Your task to perform on an android device: install app "DoorDash - Dasher" Image 0: 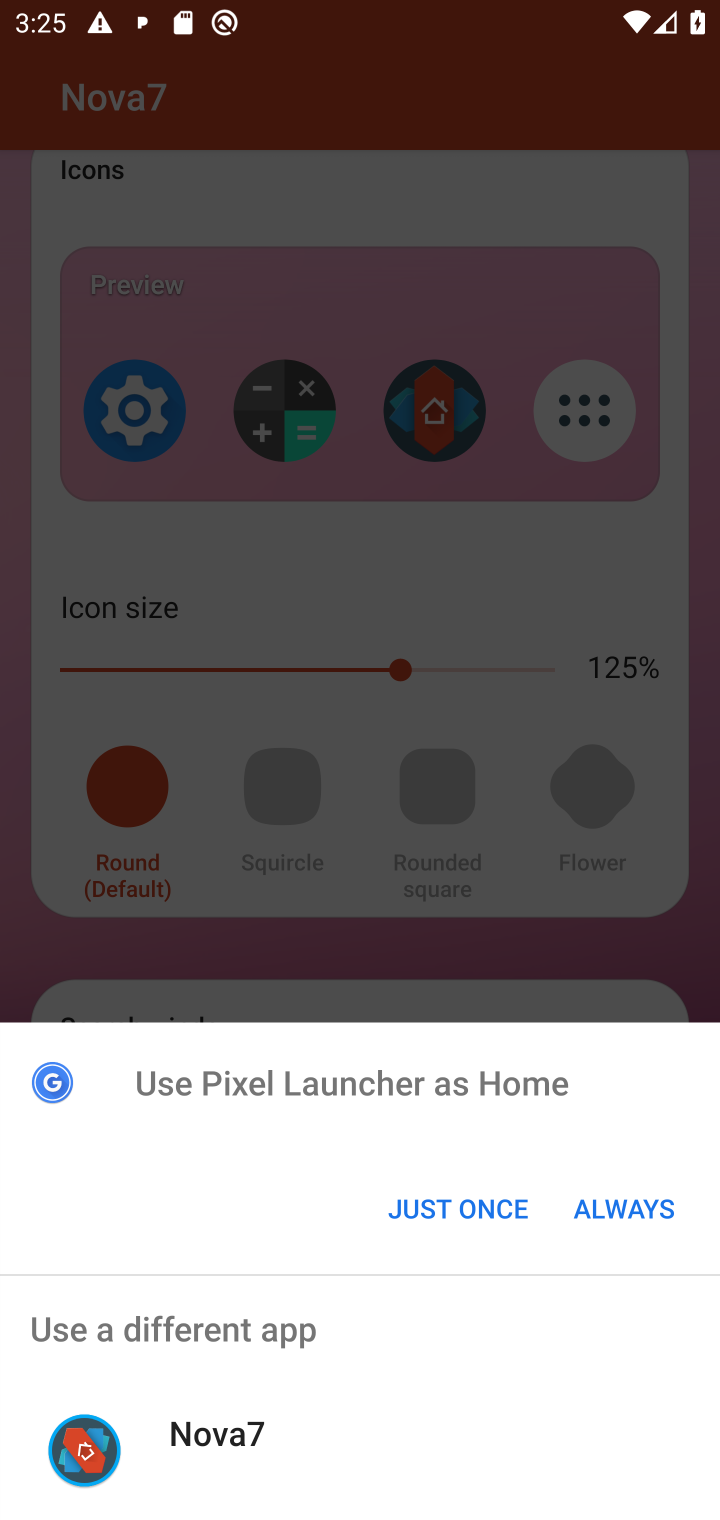
Step 0: press home button
Your task to perform on an android device: install app "DoorDash - Dasher" Image 1: 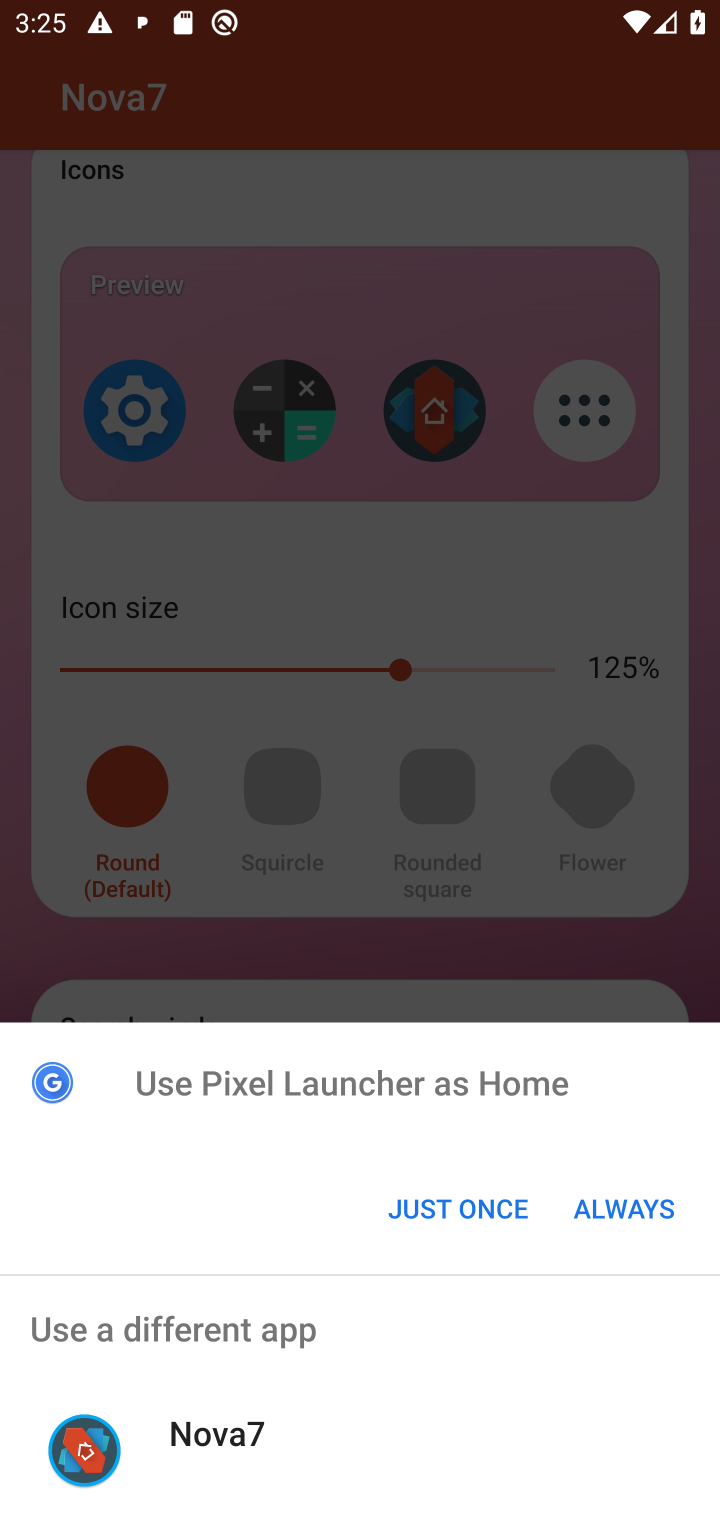
Step 1: press home button
Your task to perform on an android device: install app "DoorDash - Dasher" Image 2: 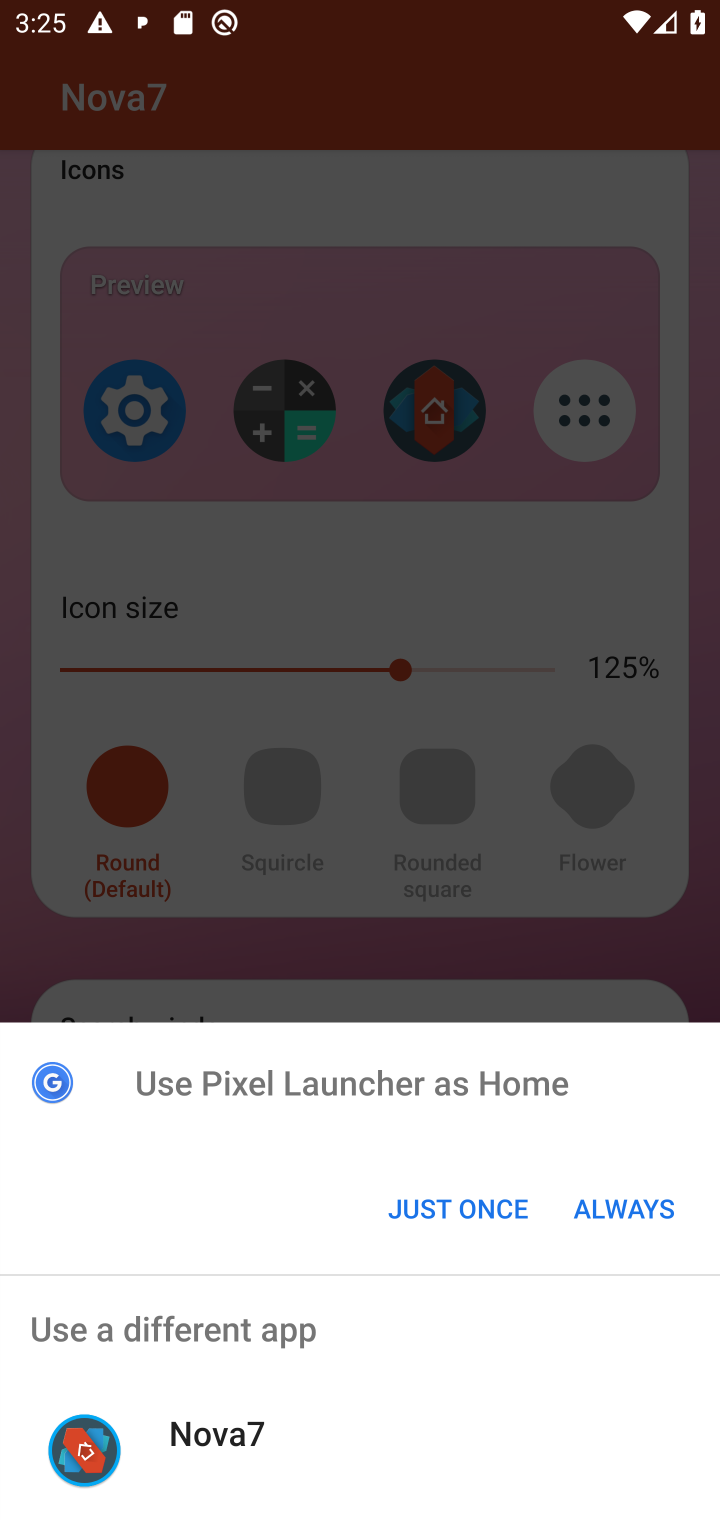
Step 2: press home button
Your task to perform on an android device: install app "DoorDash - Dasher" Image 3: 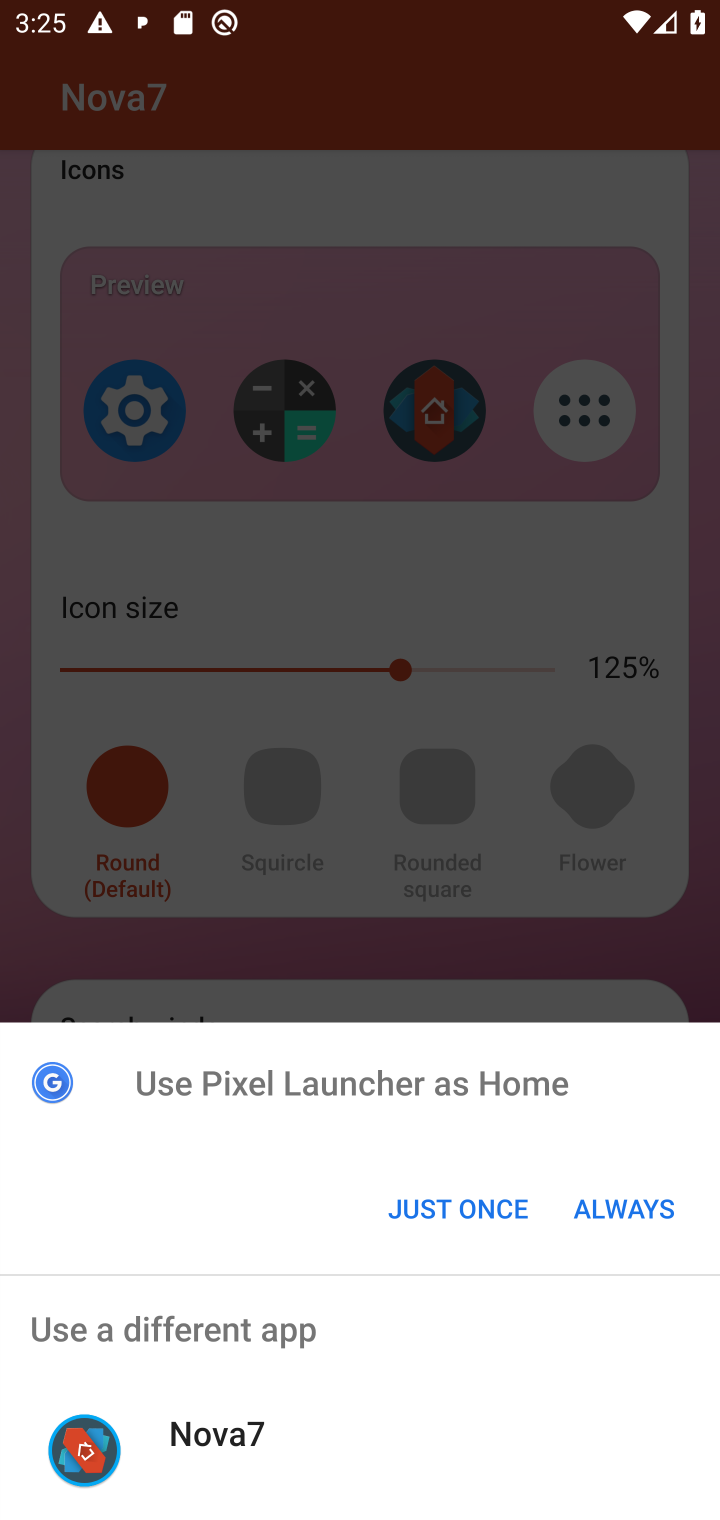
Step 3: click (451, 1184)
Your task to perform on an android device: install app "DoorDash - Dasher" Image 4: 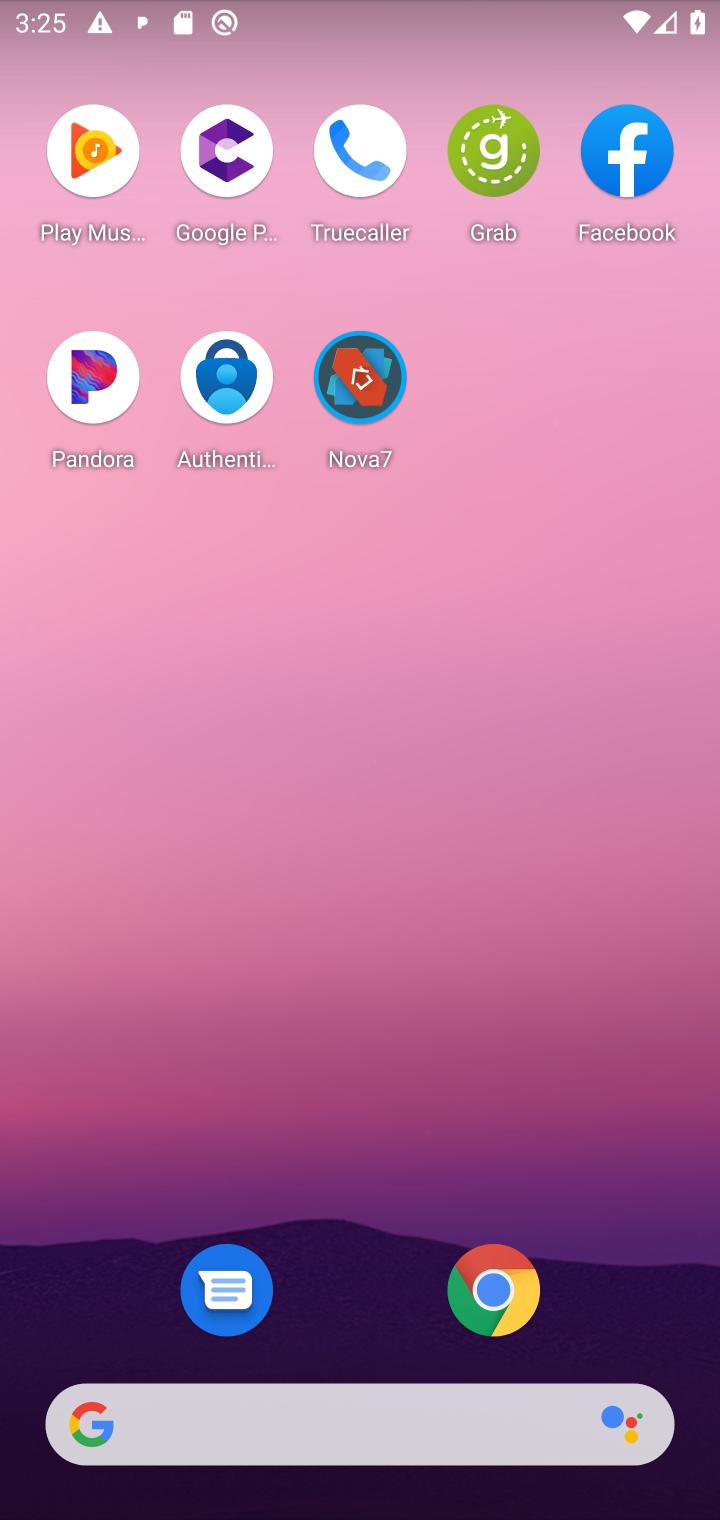
Step 4: drag from (335, 1258) to (248, 124)
Your task to perform on an android device: install app "DoorDash - Dasher" Image 5: 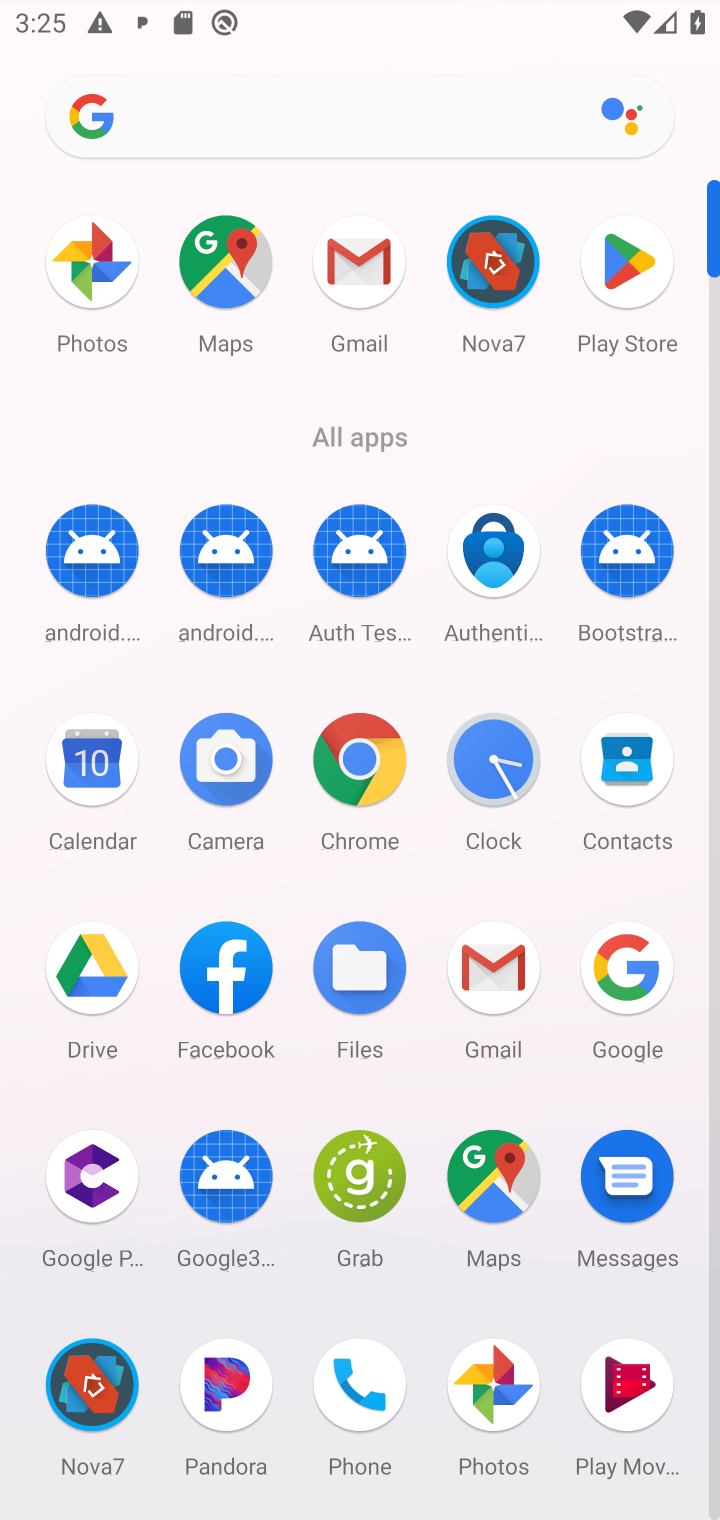
Step 5: click (620, 284)
Your task to perform on an android device: install app "DoorDash - Dasher" Image 6: 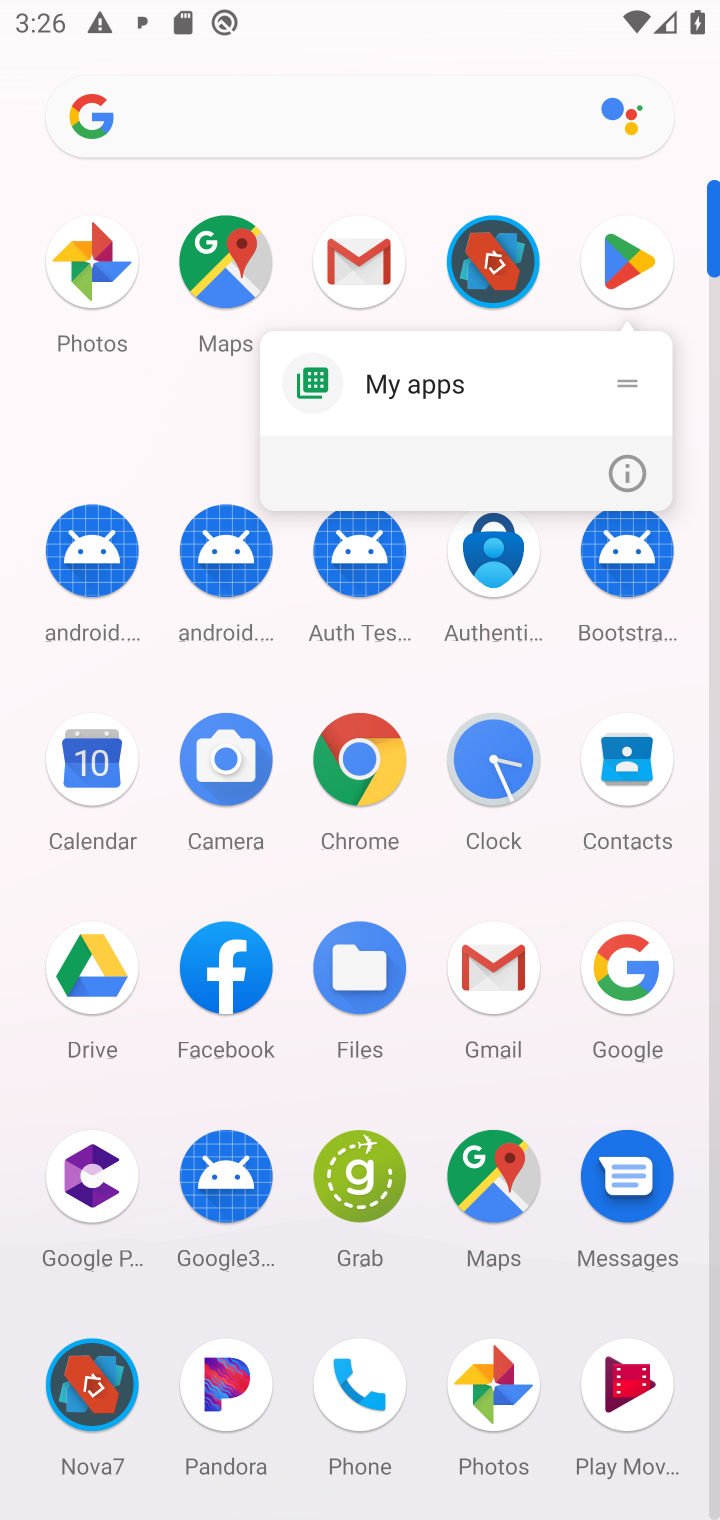
Step 6: click (629, 274)
Your task to perform on an android device: install app "DoorDash - Dasher" Image 7: 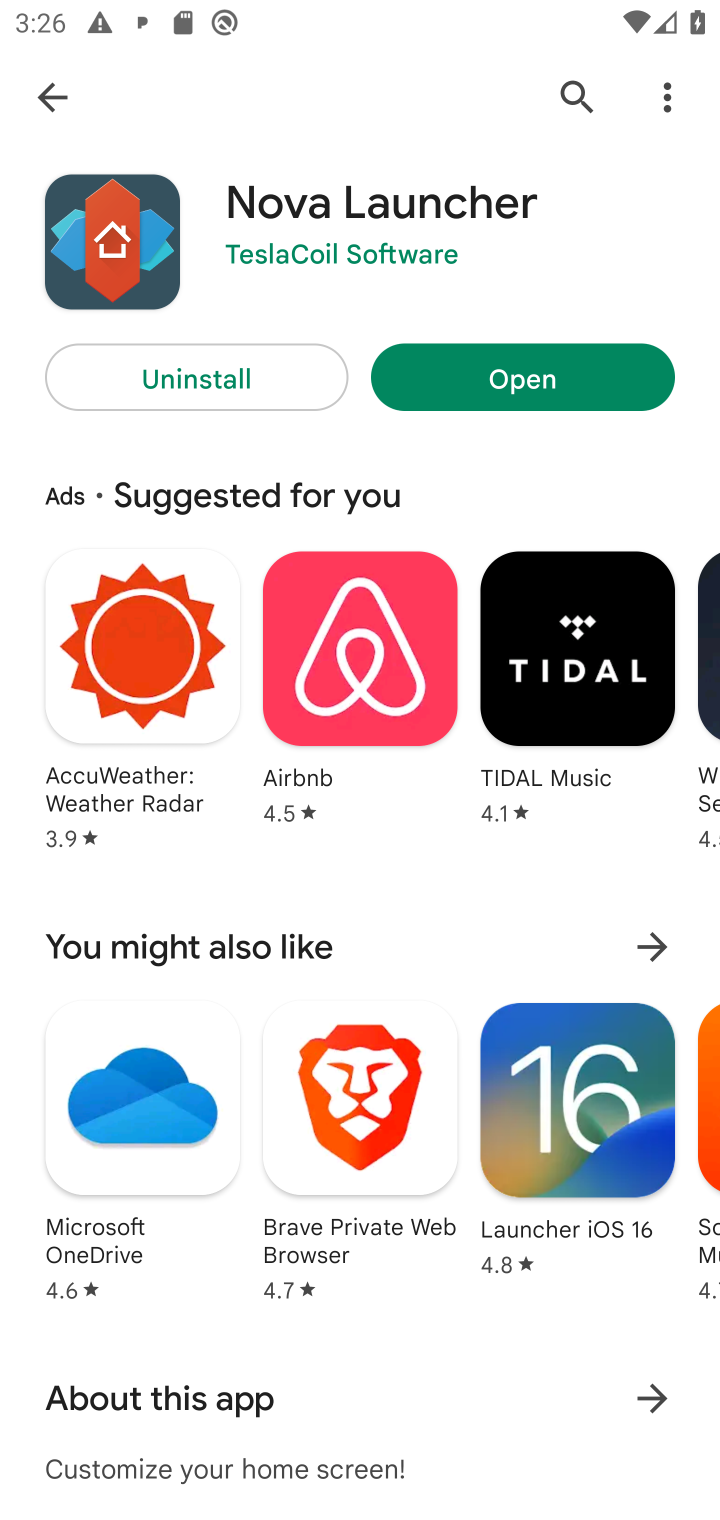
Step 7: click (35, 92)
Your task to perform on an android device: install app "DoorDash - Dasher" Image 8: 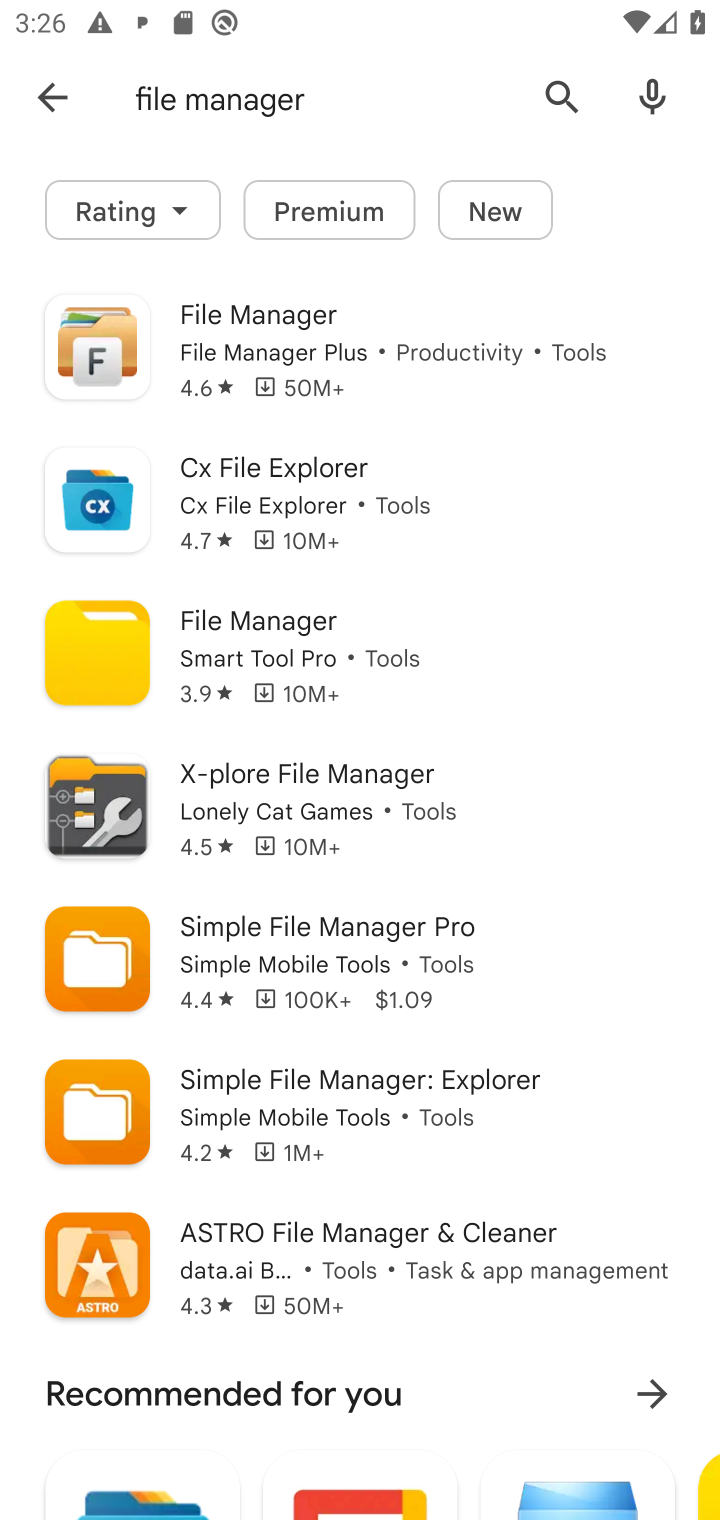
Step 8: click (561, 110)
Your task to perform on an android device: install app "DoorDash - Dasher" Image 9: 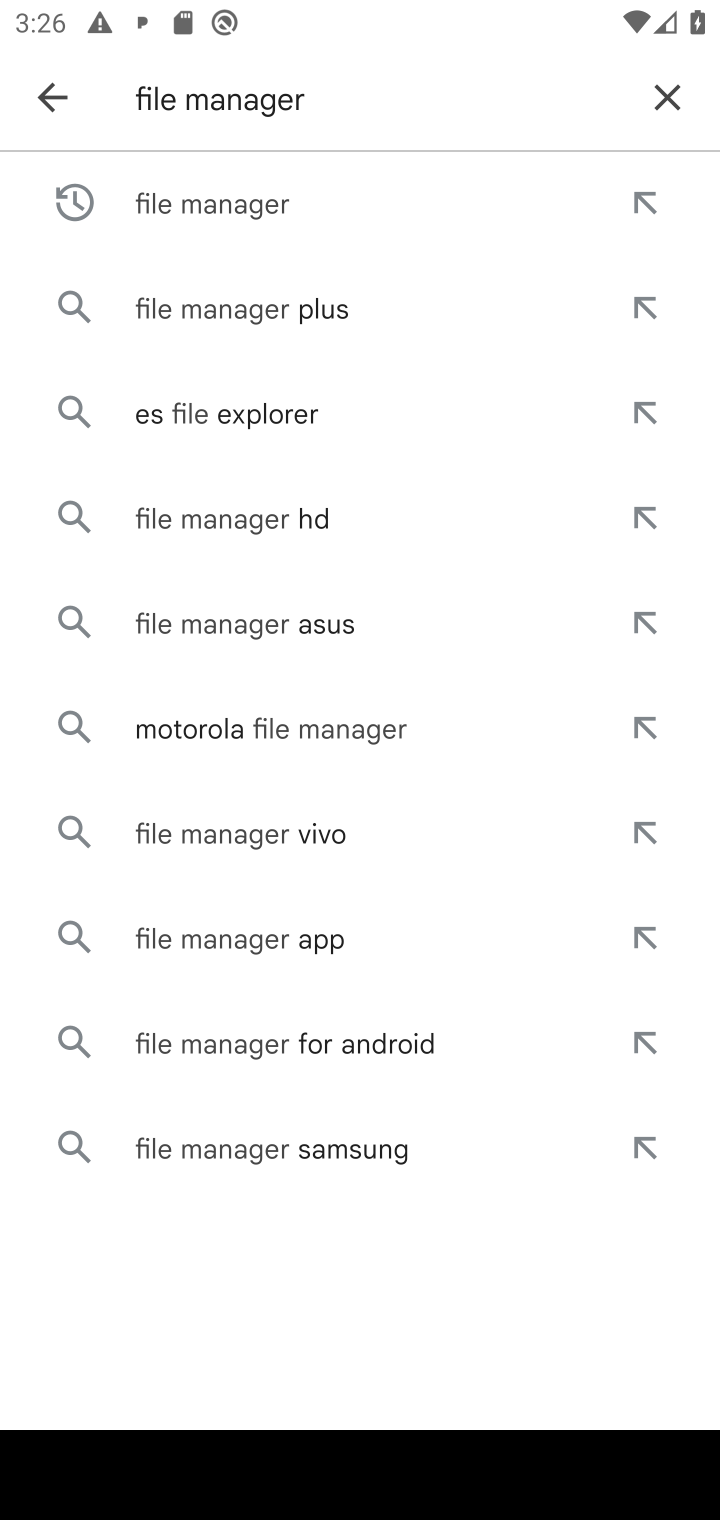
Step 9: click (682, 99)
Your task to perform on an android device: install app "DoorDash - Dasher" Image 10: 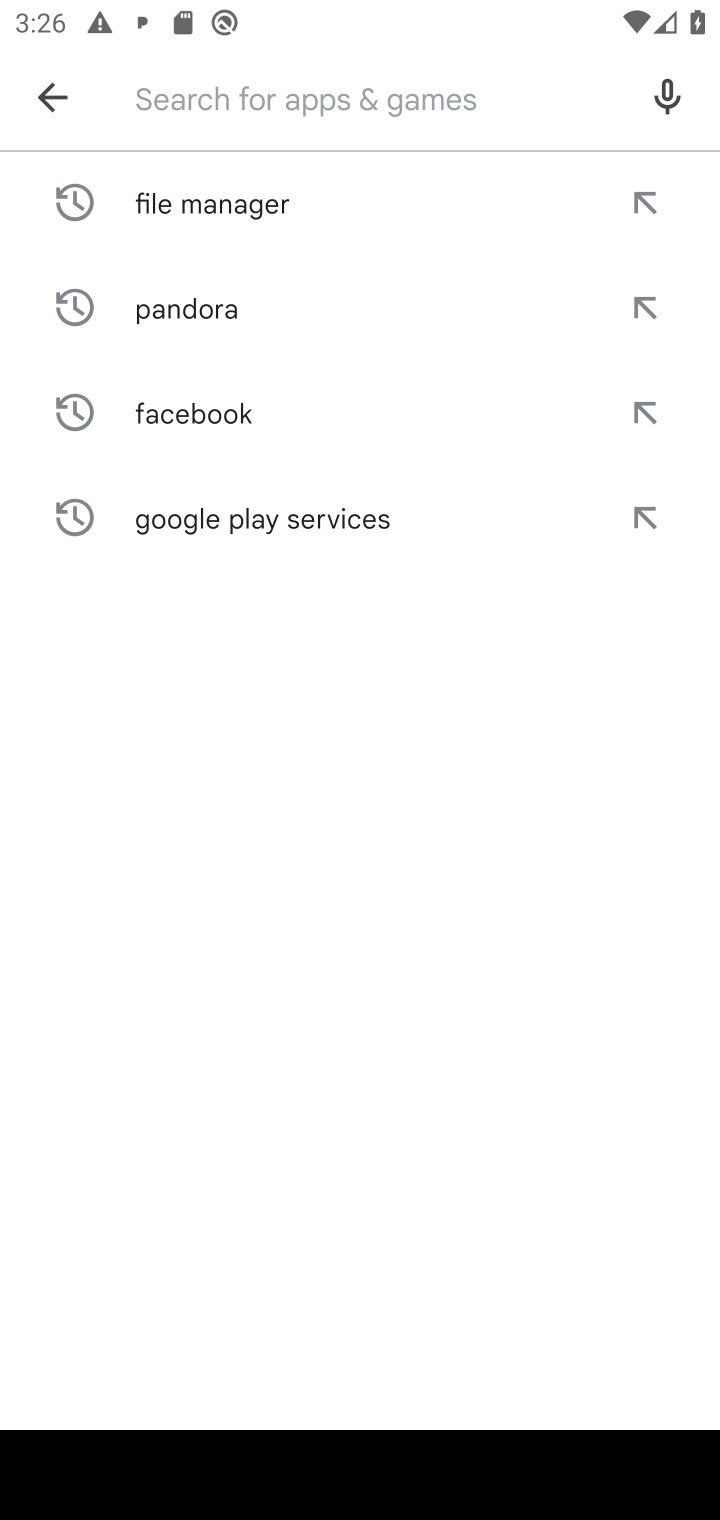
Step 10: type "DoorDash - Dasher"
Your task to perform on an android device: install app "DoorDash - Dasher" Image 11: 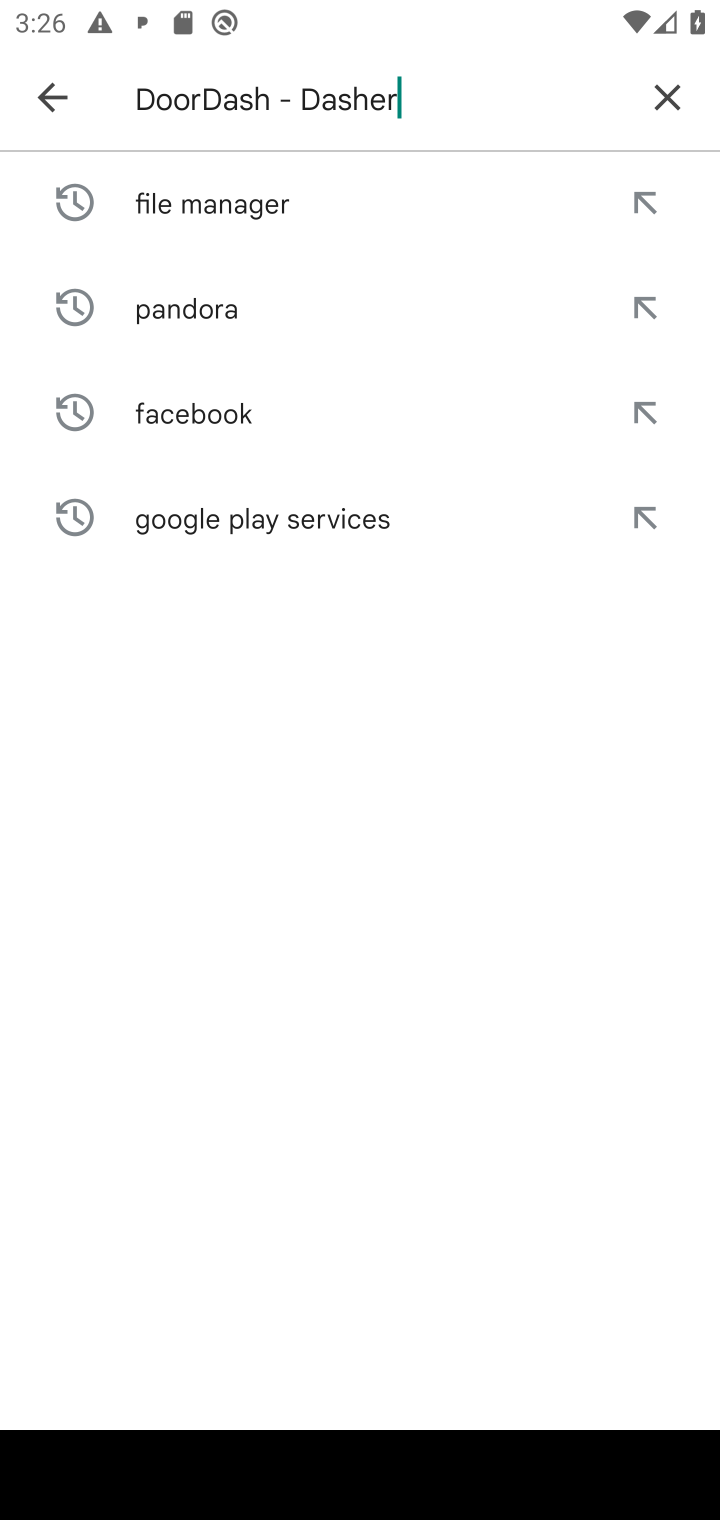
Step 11: type ""
Your task to perform on an android device: install app "DoorDash - Dasher" Image 12: 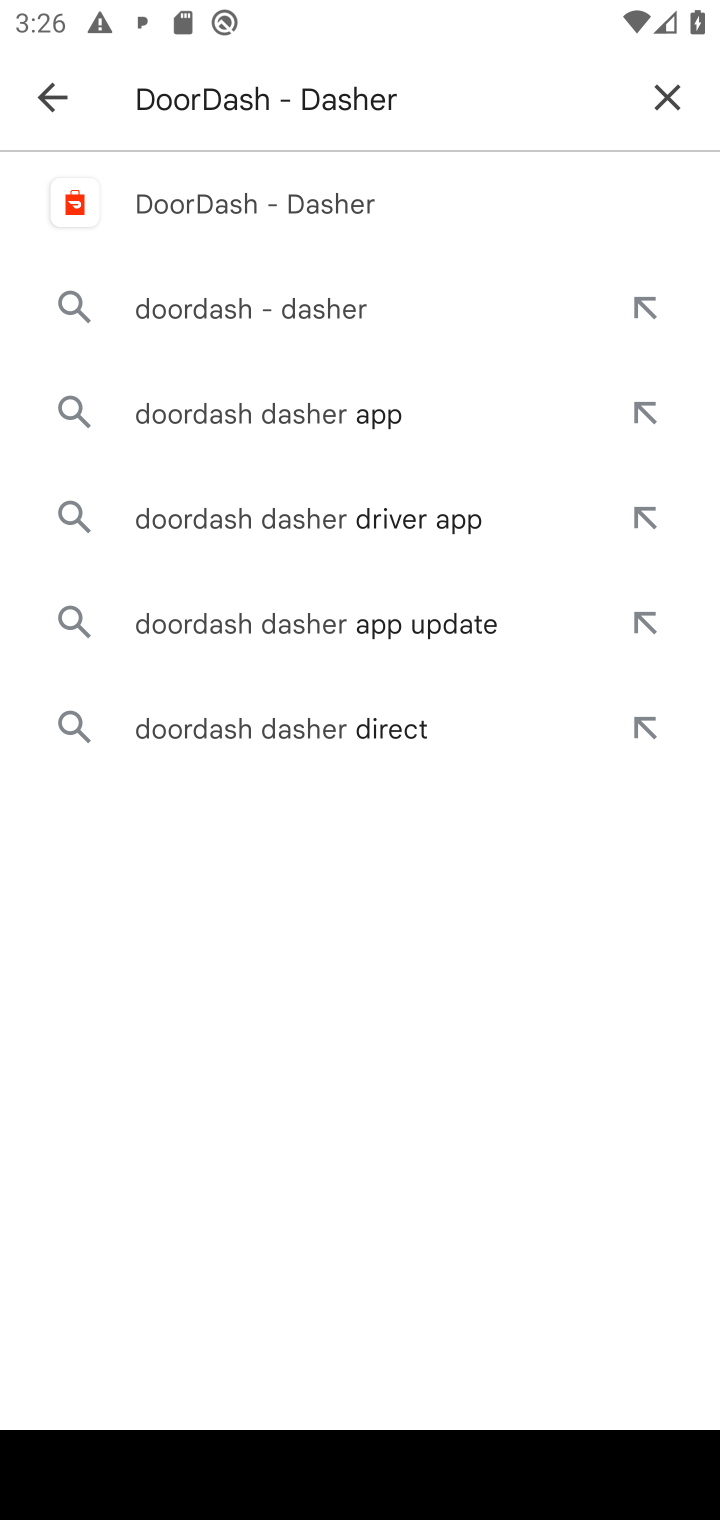
Step 12: click (337, 229)
Your task to perform on an android device: install app "DoorDash - Dasher" Image 13: 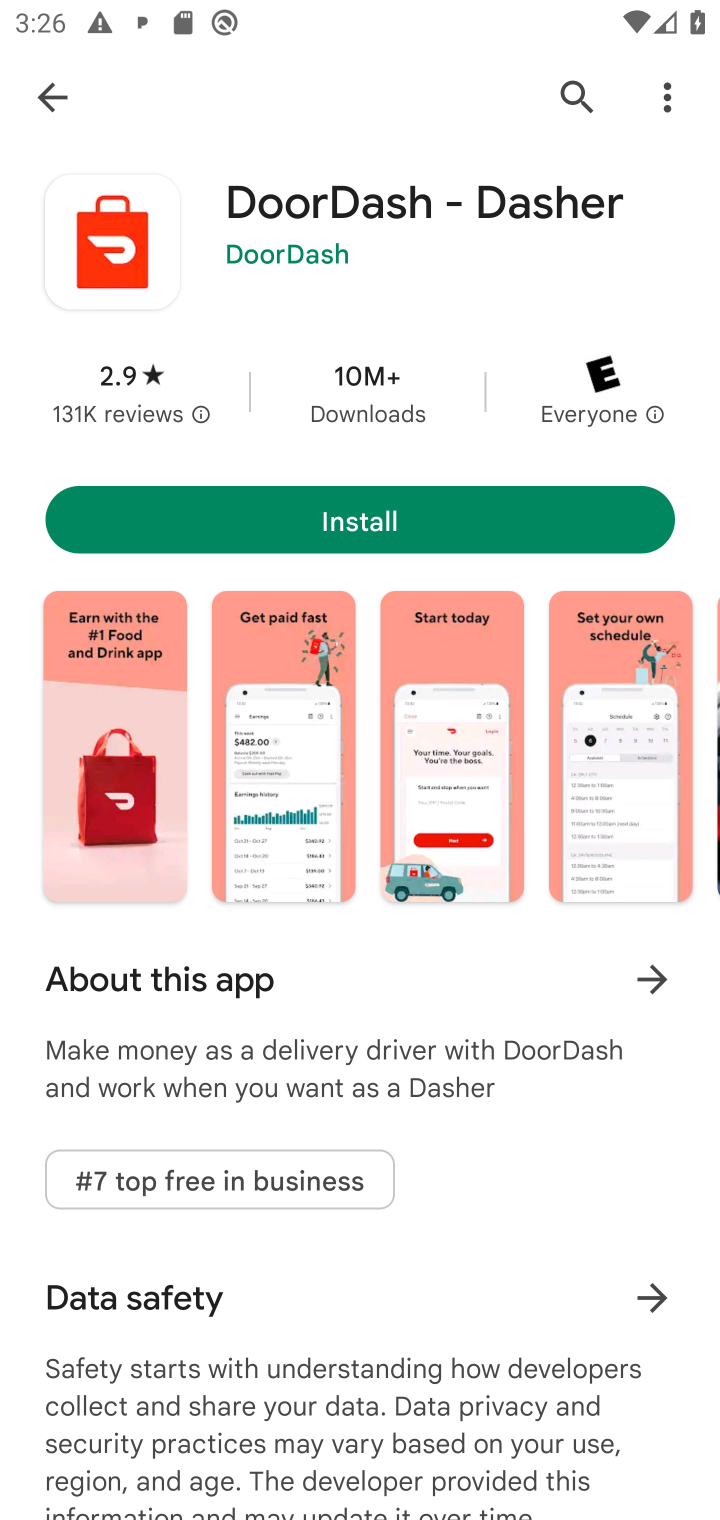
Step 13: click (332, 510)
Your task to perform on an android device: install app "DoorDash - Dasher" Image 14: 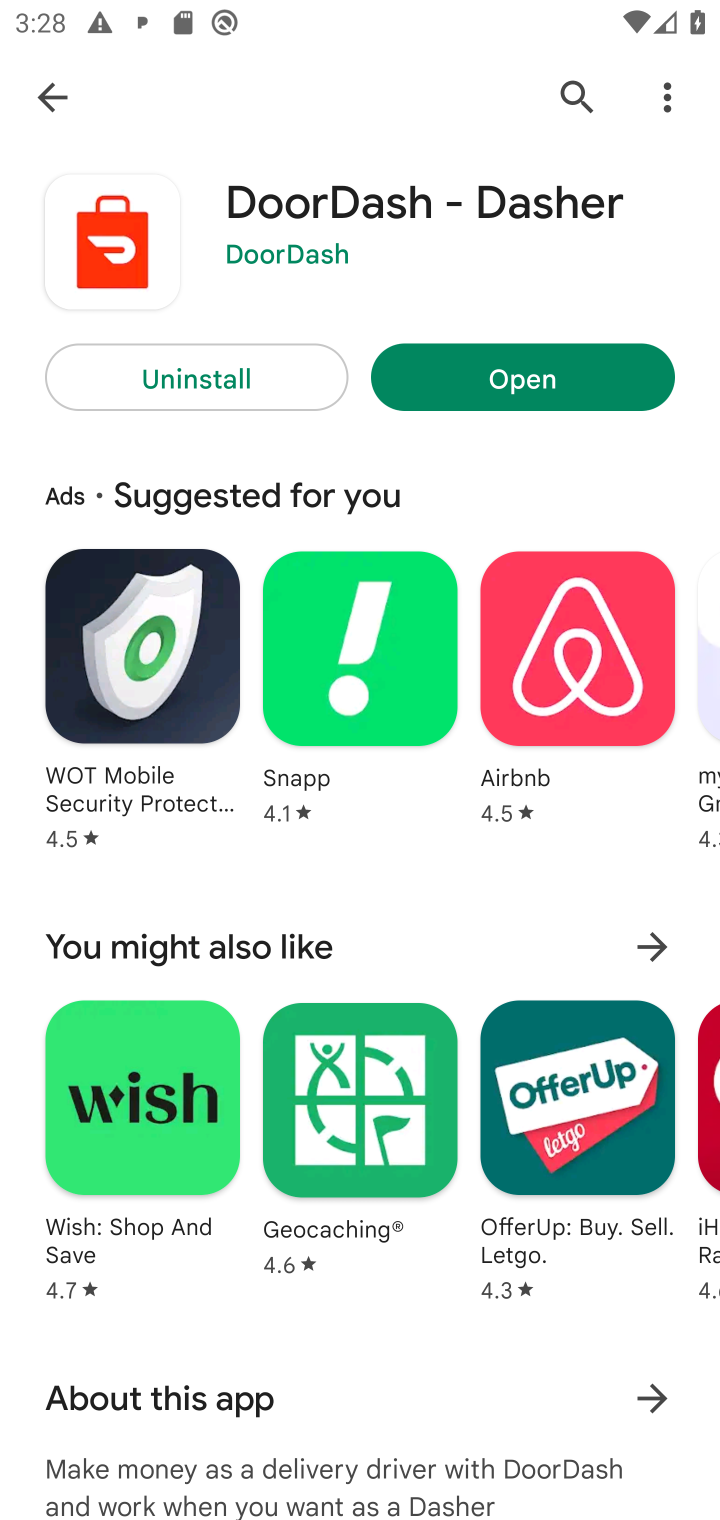
Step 14: click (520, 388)
Your task to perform on an android device: install app "DoorDash - Dasher" Image 15: 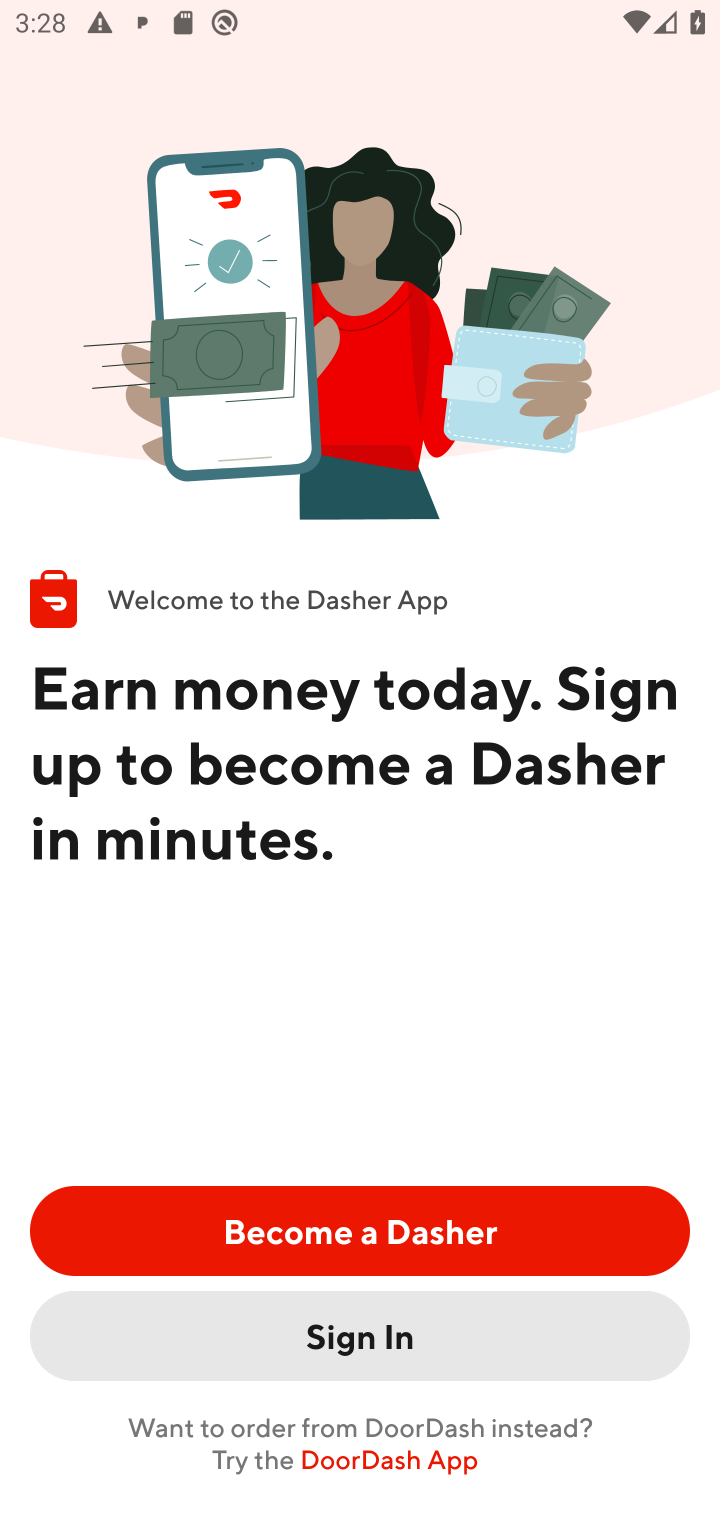
Step 15: task complete